Your task to perform on an android device: What's on my calendar tomorrow? Image 0: 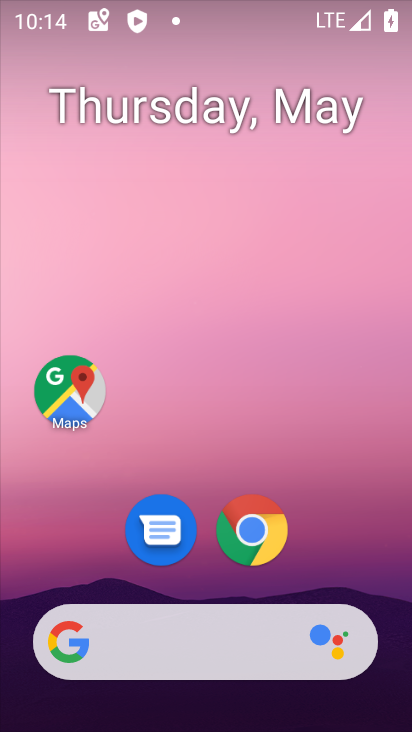
Step 0: drag from (225, 684) to (316, 90)
Your task to perform on an android device: What's on my calendar tomorrow? Image 1: 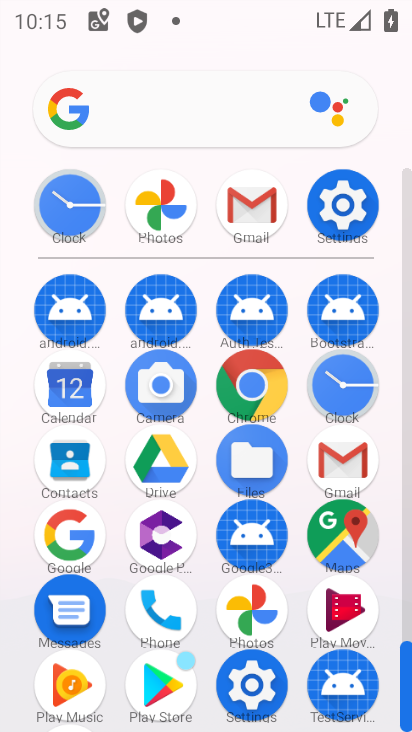
Step 1: click (87, 390)
Your task to perform on an android device: What's on my calendar tomorrow? Image 2: 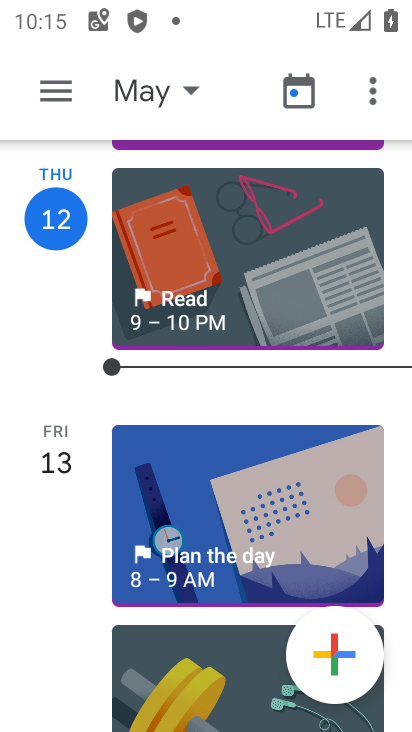
Step 2: task complete